Your task to perform on an android device: Open network settings Image 0: 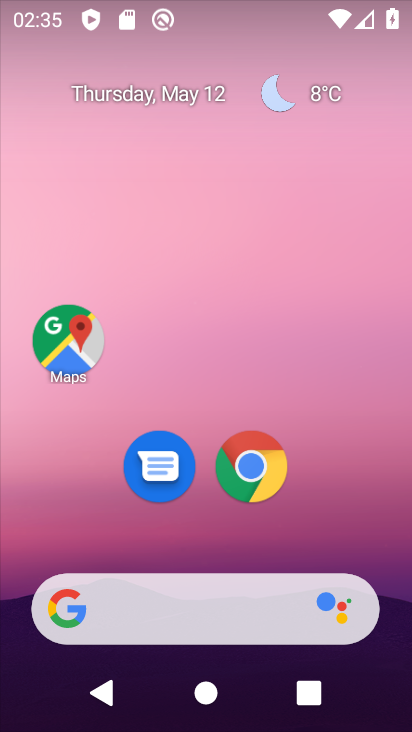
Step 0: drag from (334, 520) to (319, 0)
Your task to perform on an android device: Open network settings Image 1: 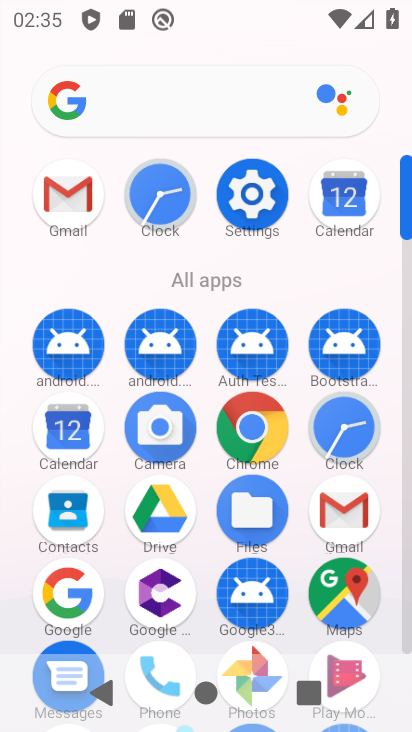
Step 1: click (257, 203)
Your task to perform on an android device: Open network settings Image 2: 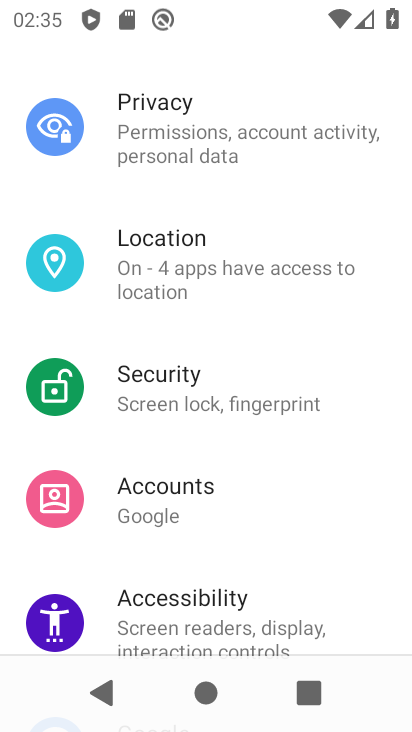
Step 2: drag from (205, 152) to (242, 575)
Your task to perform on an android device: Open network settings Image 3: 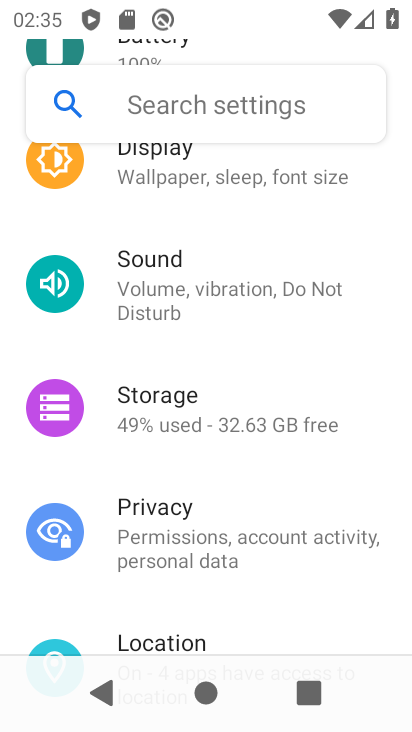
Step 3: drag from (240, 195) to (176, 725)
Your task to perform on an android device: Open network settings Image 4: 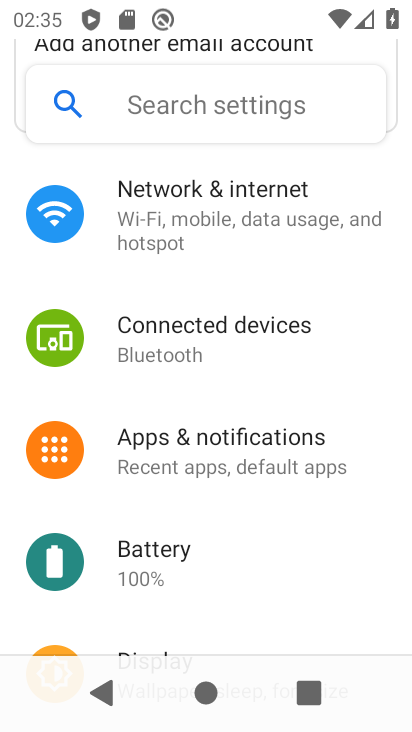
Step 4: click (172, 199)
Your task to perform on an android device: Open network settings Image 5: 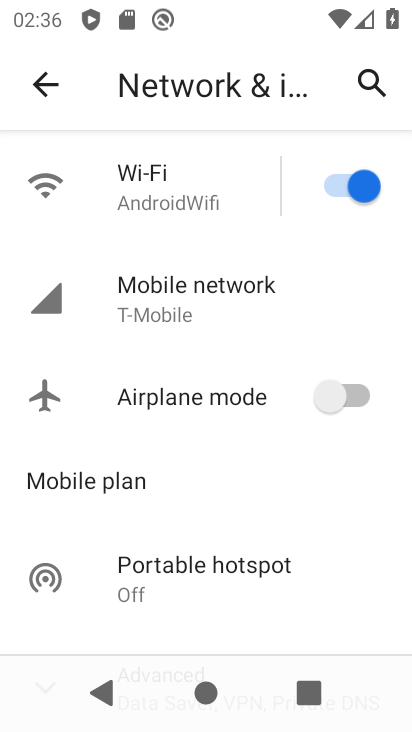
Step 5: task complete